Your task to perform on an android device: turn off wifi Image 0: 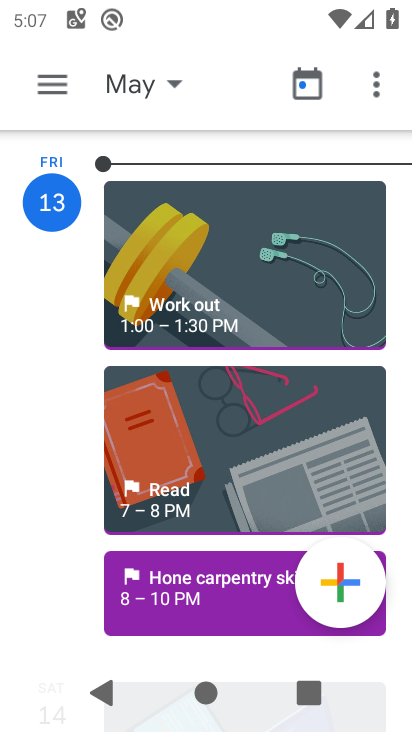
Step 0: press back button
Your task to perform on an android device: turn off wifi Image 1: 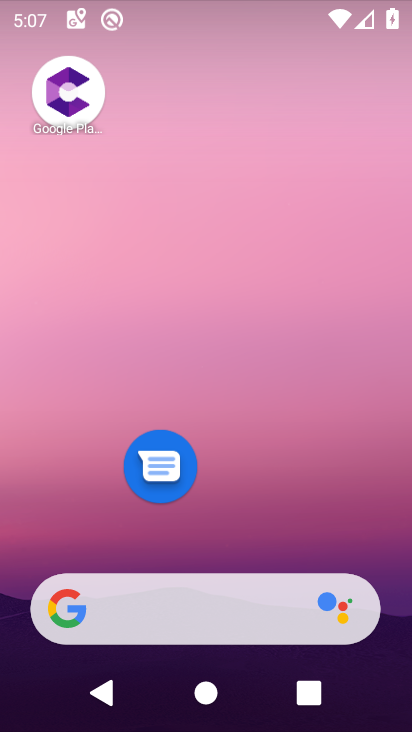
Step 1: drag from (274, 555) to (92, 69)
Your task to perform on an android device: turn off wifi Image 2: 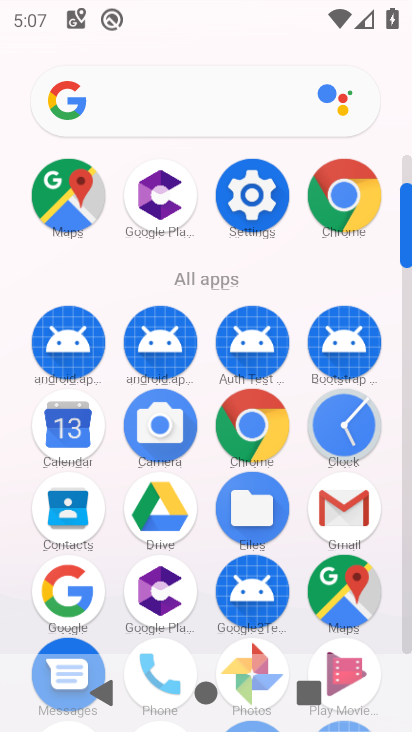
Step 2: click (335, 197)
Your task to perform on an android device: turn off wifi Image 3: 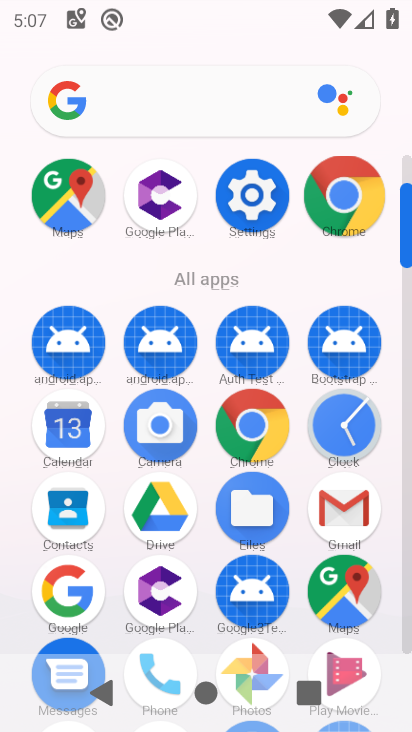
Step 3: click (335, 197)
Your task to perform on an android device: turn off wifi Image 4: 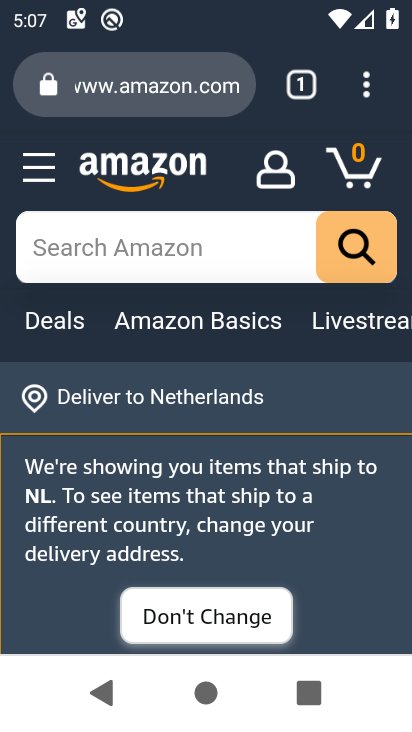
Step 4: drag from (363, 94) to (409, 86)
Your task to perform on an android device: turn off wifi Image 5: 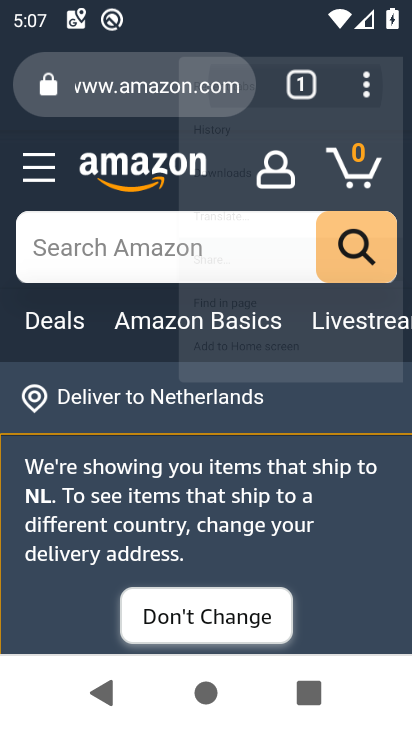
Step 5: click (234, 20)
Your task to perform on an android device: turn off wifi Image 6: 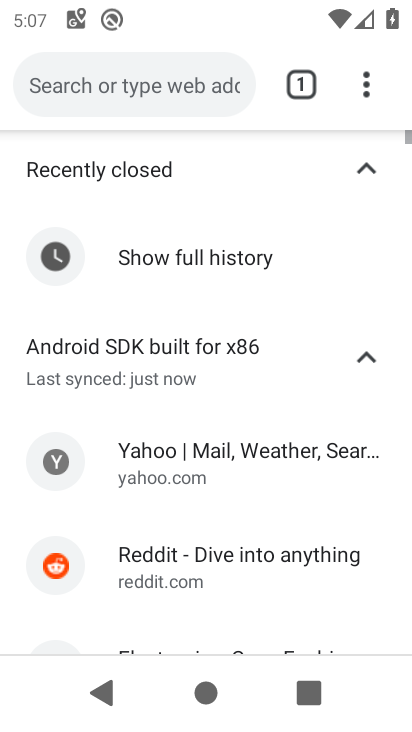
Step 6: click (254, 590)
Your task to perform on an android device: turn off wifi Image 7: 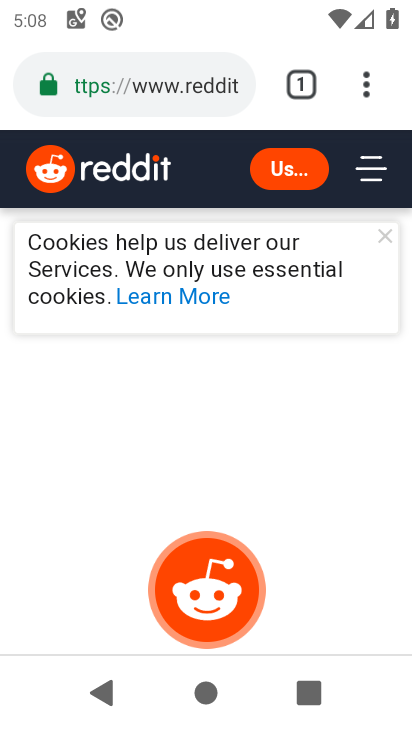
Step 7: press back button
Your task to perform on an android device: turn off wifi Image 8: 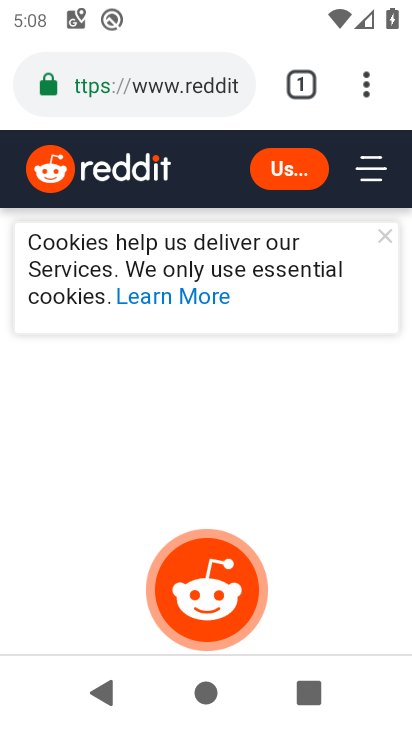
Step 8: press back button
Your task to perform on an android device: turn off wifi Image 9: 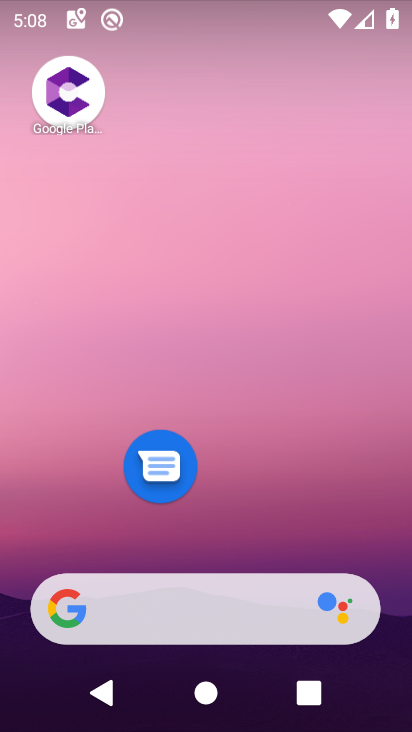
Step 9: drag from (333, 597) to (99, 74)
Your task to perform on an android device: turn off wifi Image 10: 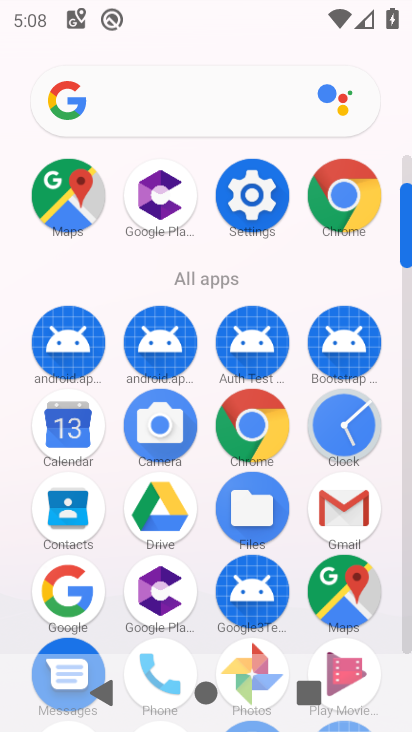
Step 10: click (249, 197)
Your task to perform on an android device: turn off wifi Image 11: 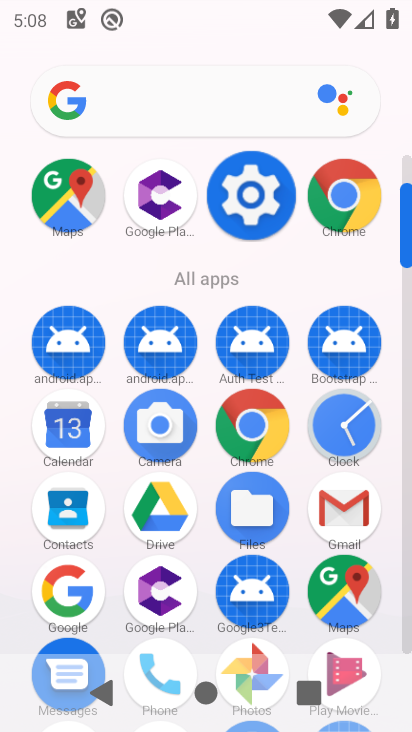
Step 11: click (249, 197)
Your task to perform on an android device: turn off wifi Image 12: 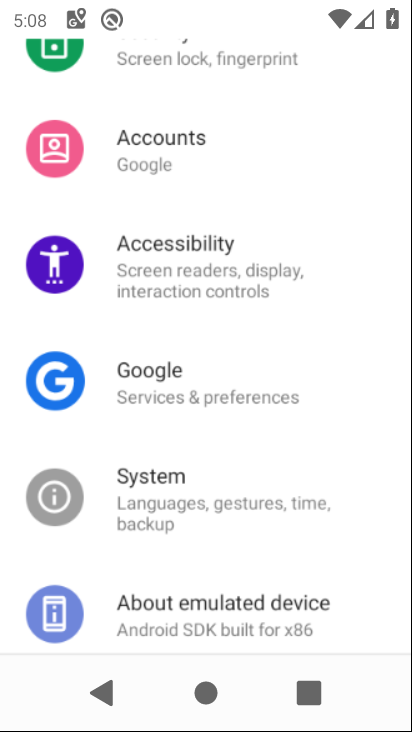
Step 12: click (250, 196)
Your task to perform on an android device: turn off wifi Image 13: 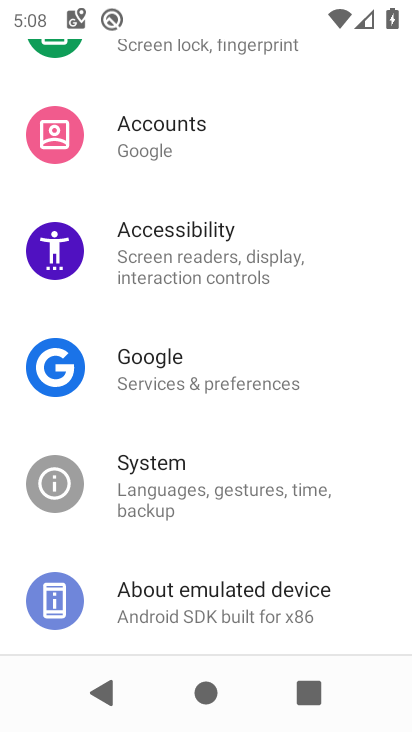
Step 13: click (253, 192)
Your task to perform on an android device: turn off wifi Image 14: 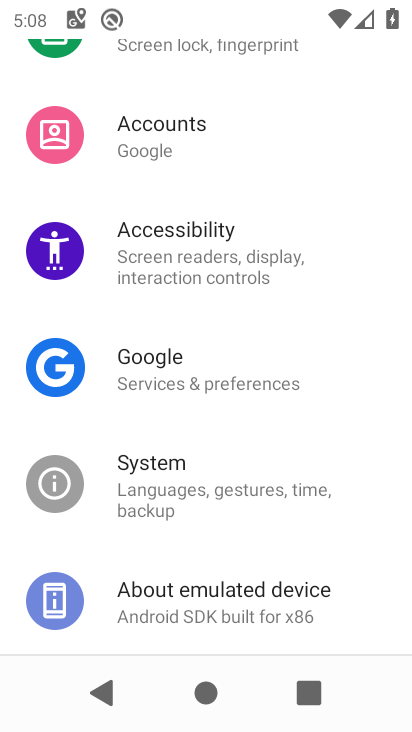
Step 14: click (255, 195)
Your task to perform on an android device: turn off wifi Image 15: 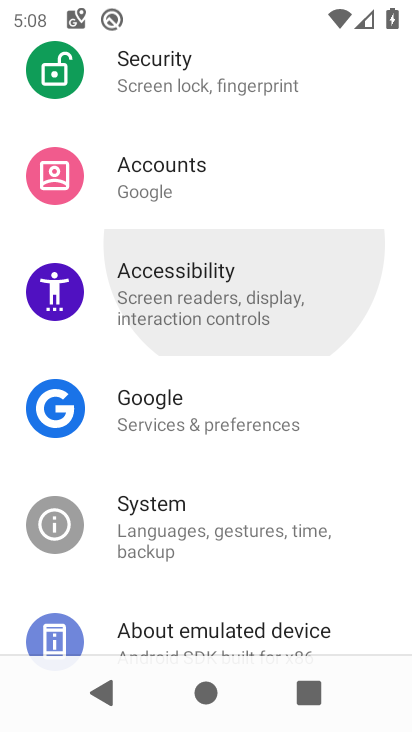
Step 15: click (249, 201)
Your task to perform on an android device: turn off wifi Image 16: 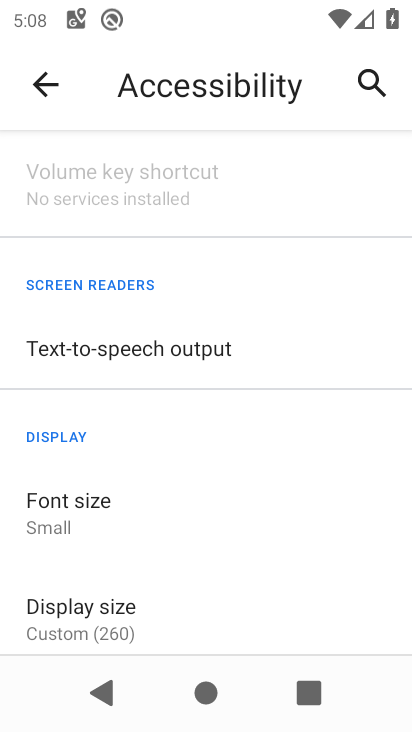
Step 16: click (41, 87)
Your task to perform on an android device: turn off wifi Image 17: 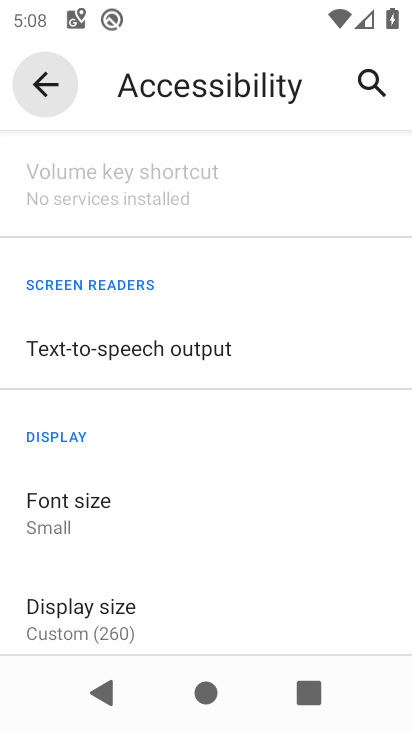
Step 17: click (46, 83)
Your task to perform on an android device: turn off wifi Image 18: 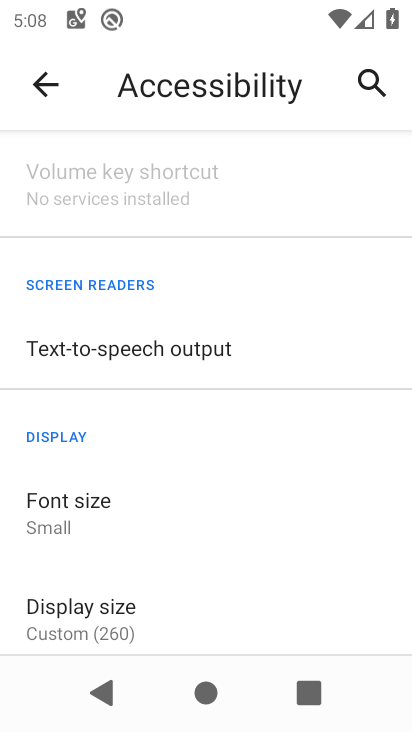
Step 18: click (45, 82)
Your task to perform on an android device: turn off wifi Image 19: 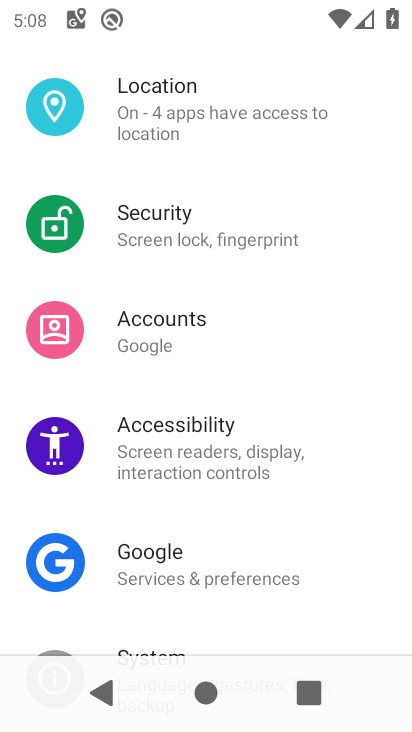
Step 19: drag from (259, 551) to (208, 483)
Your task to perform on an android device: turn off wifi Image 20: 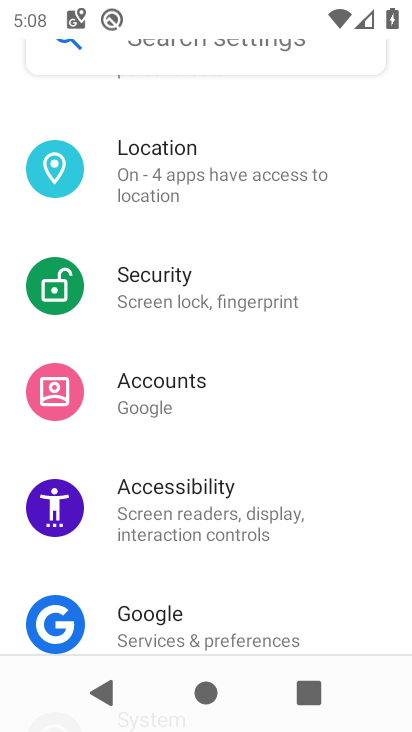
Step 20: drag from (162, 262) to (266, 637)
Your task to perform on an android device: turn off wifi Image 21: 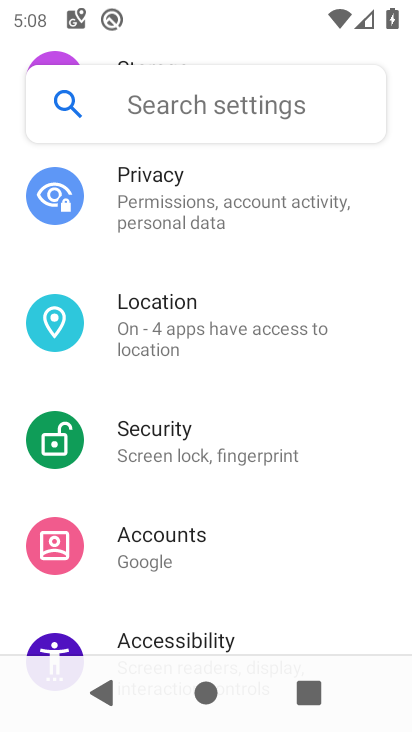
Step 21: drag from (203, 262) to (200, 606)
Your task to perform on an android device: turn off wifi Image 22: 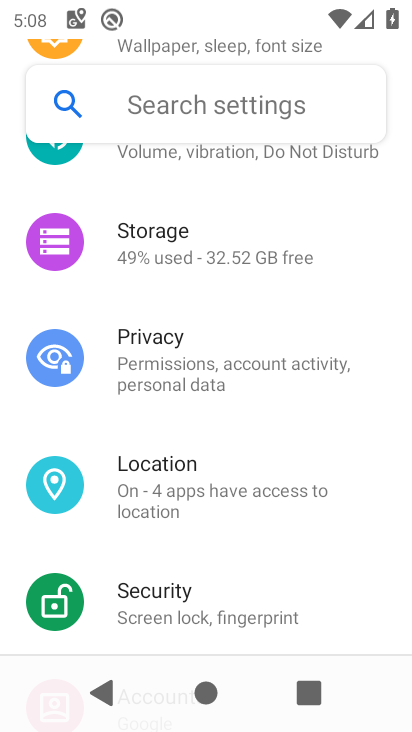
Step 22: click (221, 514)
Your task to perform on an android device: turn off wifi Image 23: 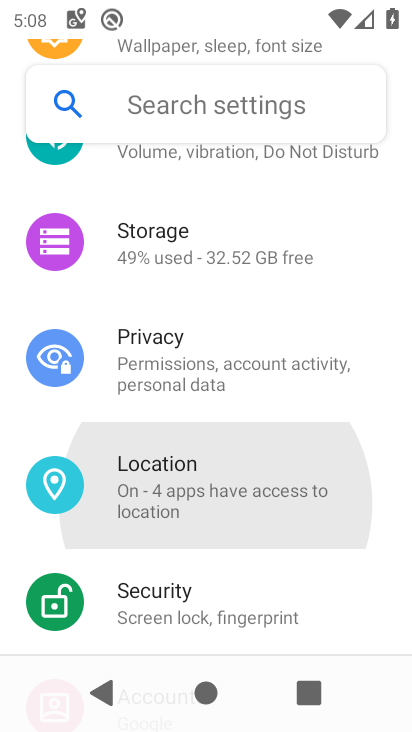
Step 23: drag from (148, 195) to (215, 650)
Your task to perform on an android device: turn off wifi Image 24: 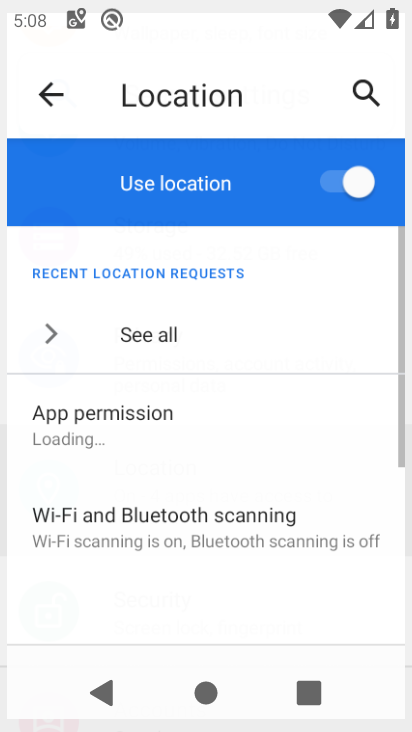
Step 24: drag from (137, 180) to (169, 489)
Your task to perform on an android device: turn off wifi Image 25: 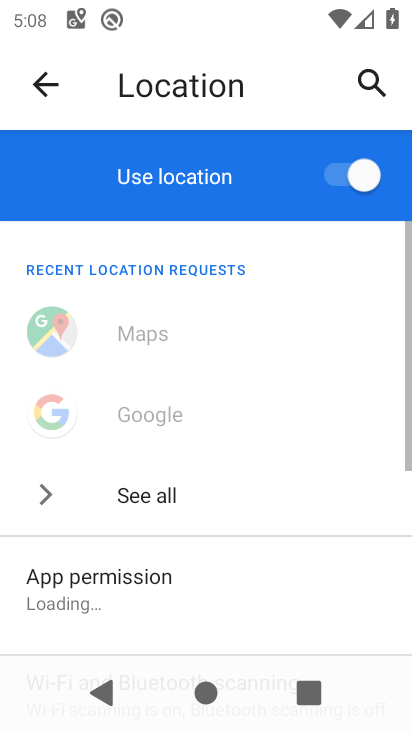
Step 25: drag from (206, 420) to (245, 652)
Your task to perform on an android device: turn off wifi Image 26: 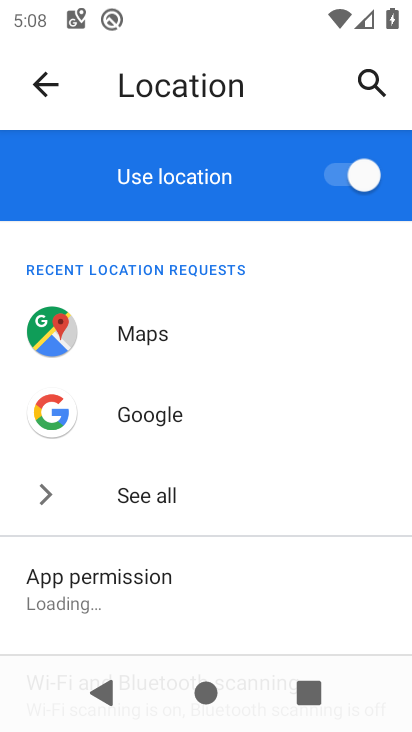
Step 26: click (48, 79)
Your task to perform on an android device: turn off wifi Image 27: 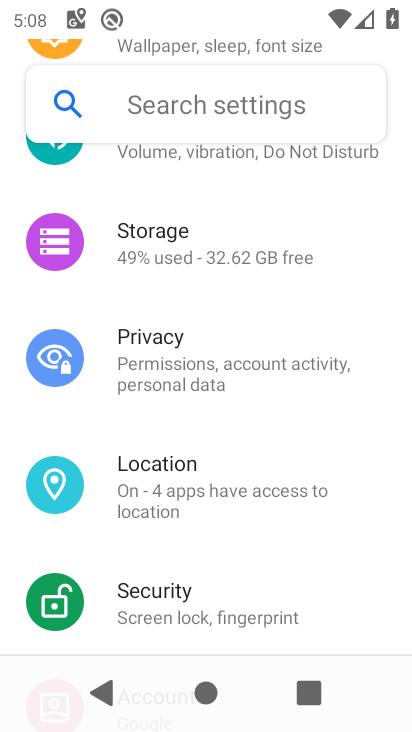
Step 27: drag from (148, 221) to (194, 539)
Your task to perform on an android device: turn off wifi Image 28: 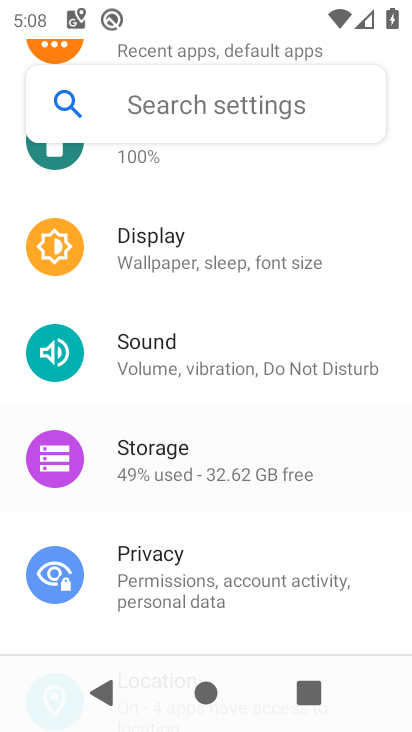
Step 28: drag from (168, 323) to (200, 551)
Your task to perform on an android device: turn off wifi Image 29: 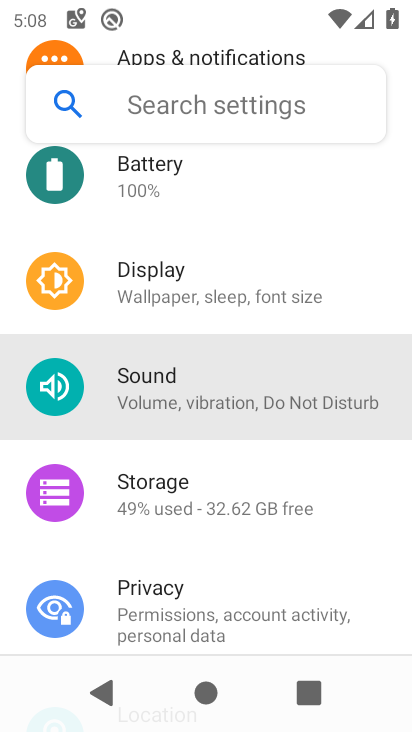
Step 29: drag from (159, 322) to (187, 600)
Your task to perform on an android device: turn off wifi Image 30: 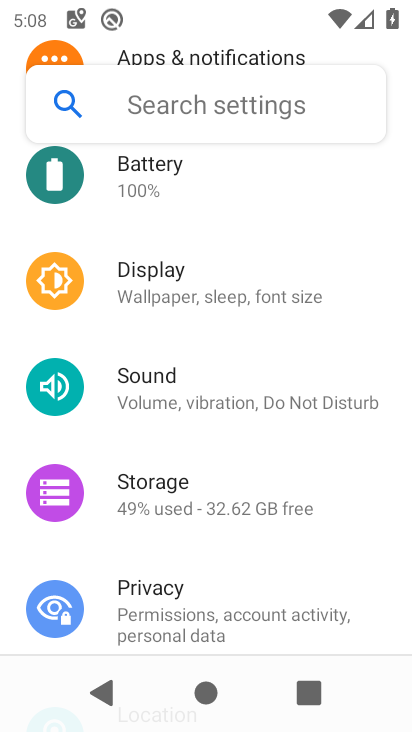
Step 30: drag from (124, 296) to (127, 630)
Your task to perform on an android device: turn off wifi Image 31: 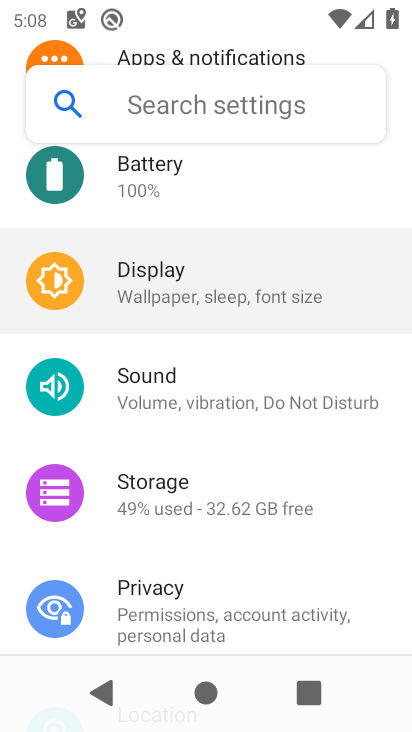
Step 31: drag from (154, 353) to (271, 579)
Your task to perform on an android device: turn off wifi Image 32: 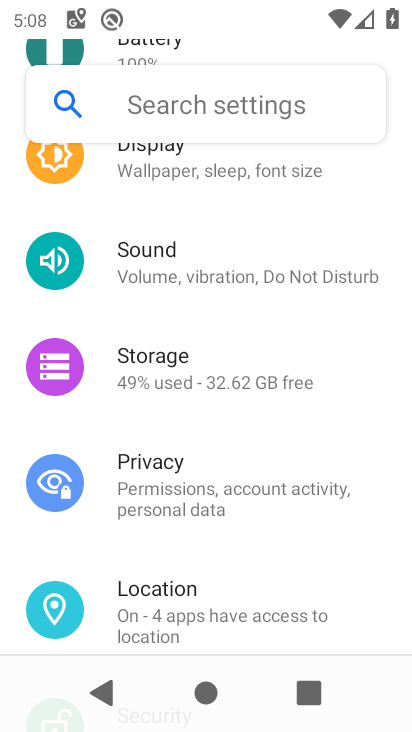
Step 32: drag from (185, 317) to (232, 683)
Your task to perform on an android device: turn off wifi Image 33: 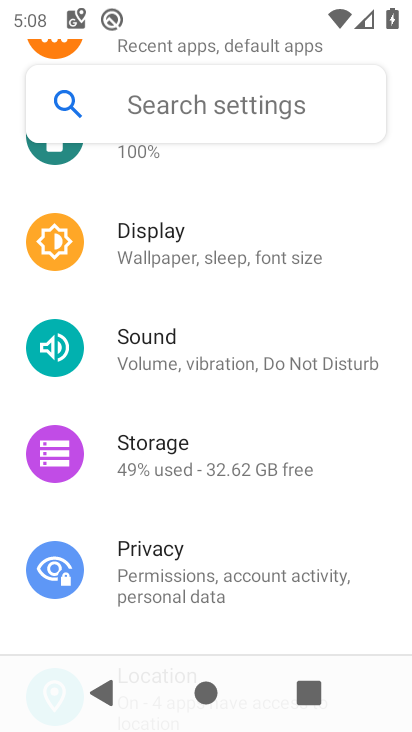
Step 33: drag from (185, 236) to (228, 540)
Your task to perform on an android device: turn off wifi Image 34: 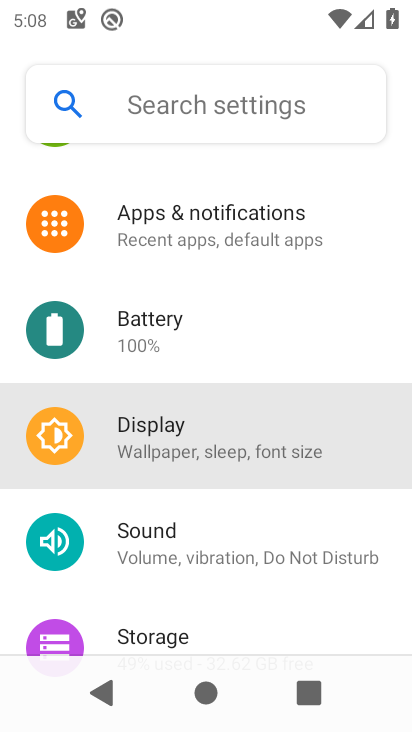
Step 34: drag from (206, 426) to (233, 562)
Your task to perform on an android device: turn off wifi Image 35: 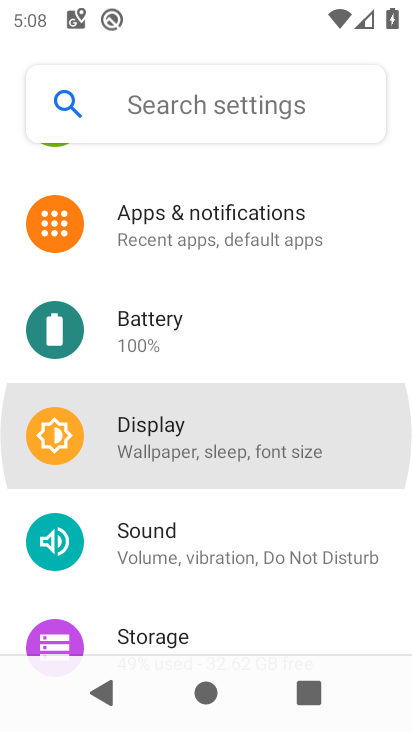
Step 35: drag from (232, 409) to (219, 510)
Your task to perform on an android device: turn off wifi Image 36: 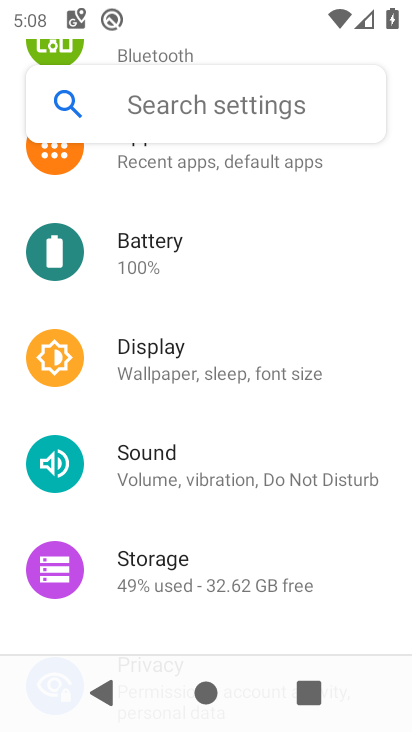
Step 36: drag from (186, 215) to (166, 515)
Your task to perform on an android device: turn off wifi Image 37: 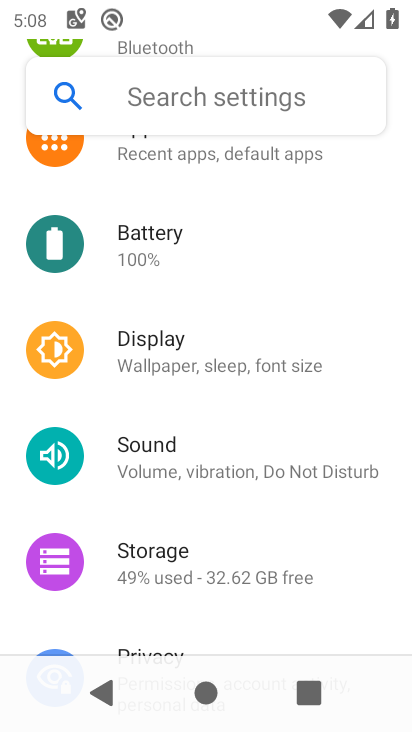
Step 37: drag from (156, 242) to (167, 533)
Your task to perform on an android device: turn off wifi Image 38: 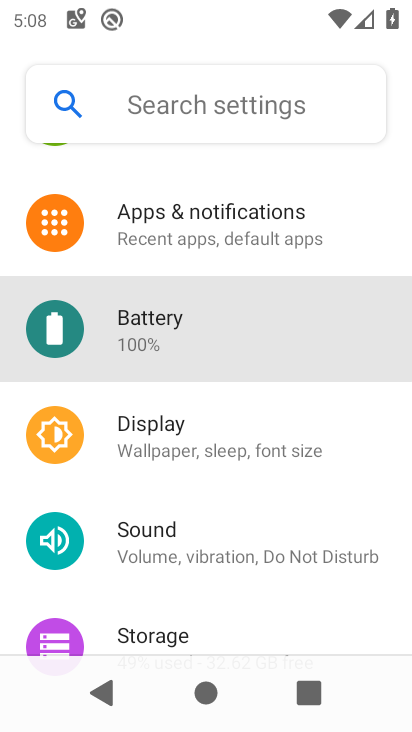
Step 38: drag from (176, 217) to (191, 596)
Your task to perform on an android device: turn off wifi Image 39: 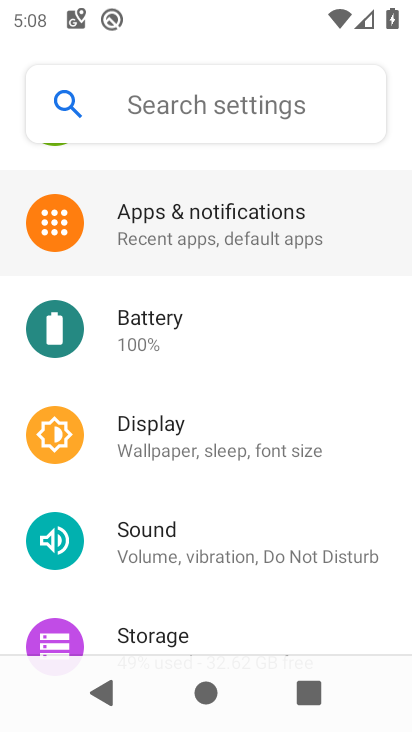
Step 39: click (218, 456)
Your task to perform on an android device: turn off wifi Image 40: 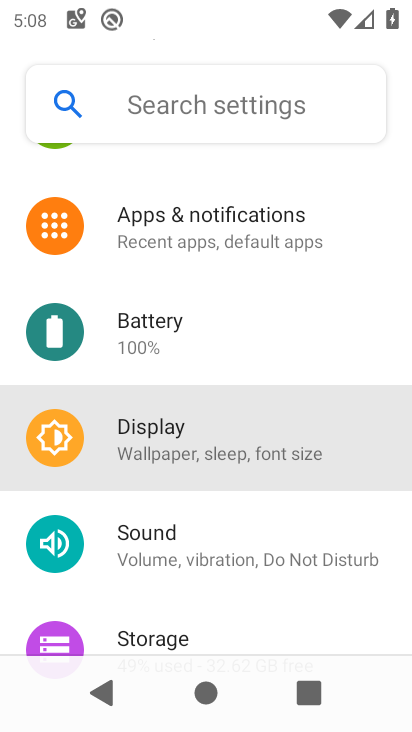
Step 40: click (188, 251)
Your task to perform on an android device: turn off wifi Image 41: 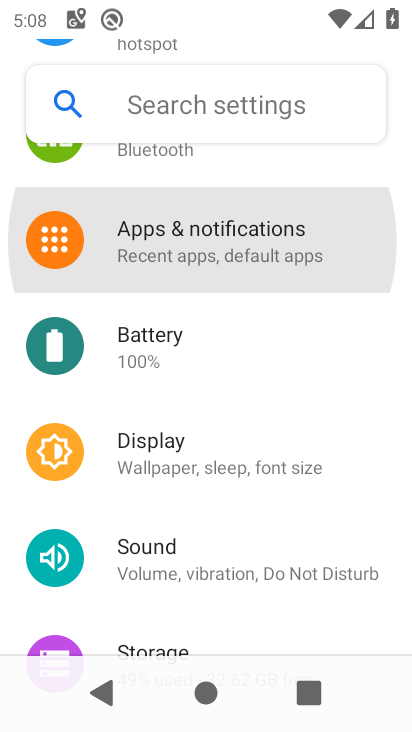
Step 41: click (210, 481)
Your task to perform on an android device: turn off wifi Image 42: 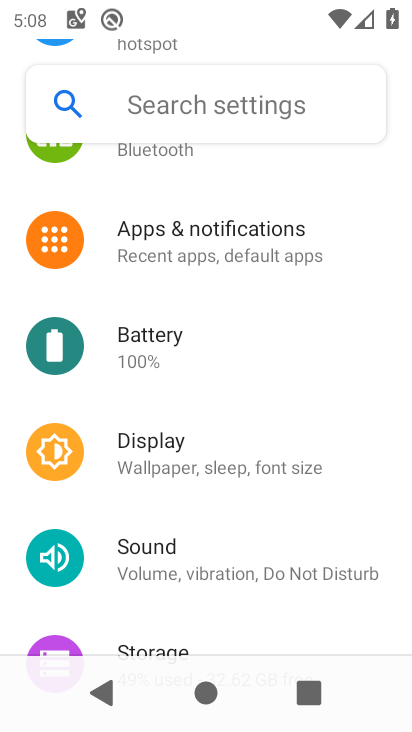
Step 42: drag from (201, 312) to (189, 485)
Your task to perform on an android device: turn off wifi Image 43: 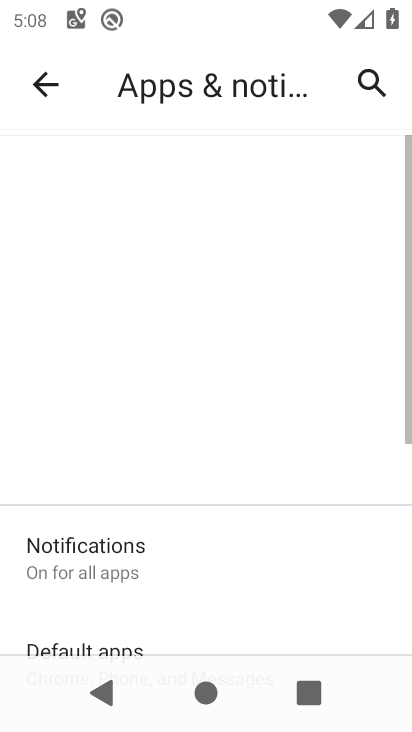
Step 43: drag from (164, 255) to (188, 434)
Your task to perform on an android device: turn off wifi Image 44: 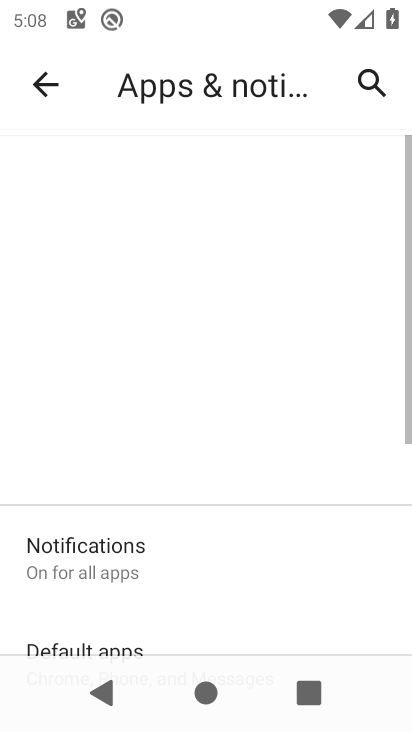
Step 44: drag from (157, 251) to (201, 611)
Your task to perform on an android device: turn off wifi Image 45: 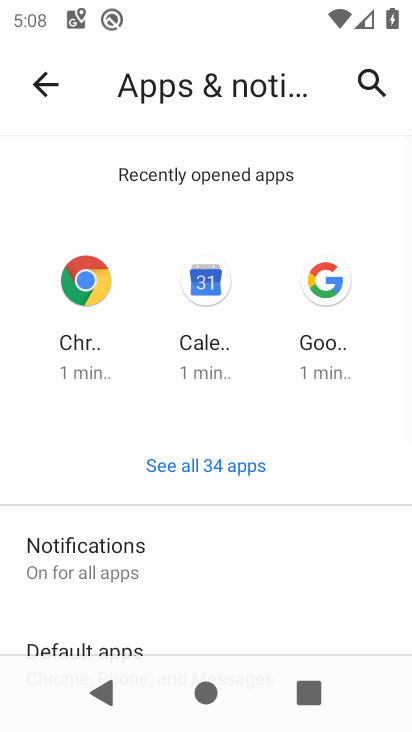
Step 45: click (43, 83)
Your task to perform on an android device: turn off wifi Image 46: 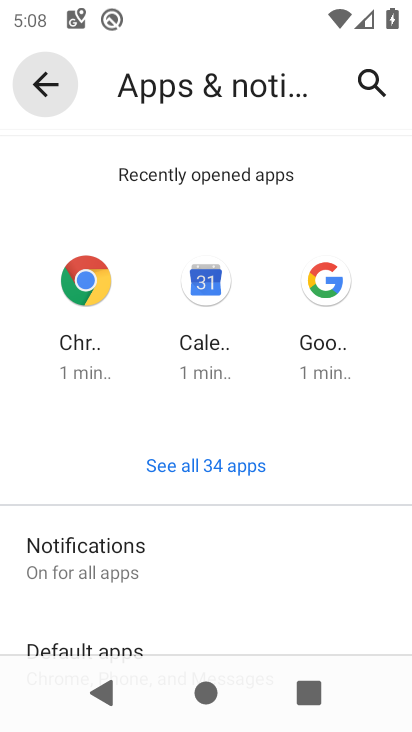
Step 46: click (42, 84)
Your task to perform on an android device: turn off wifi Image 47: 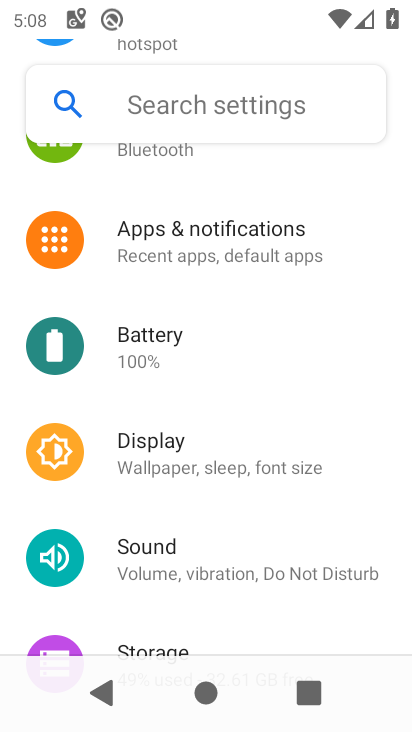
Step 47: click (213, 426)
Your task to perform on an android device: turn off wifi Image 48: 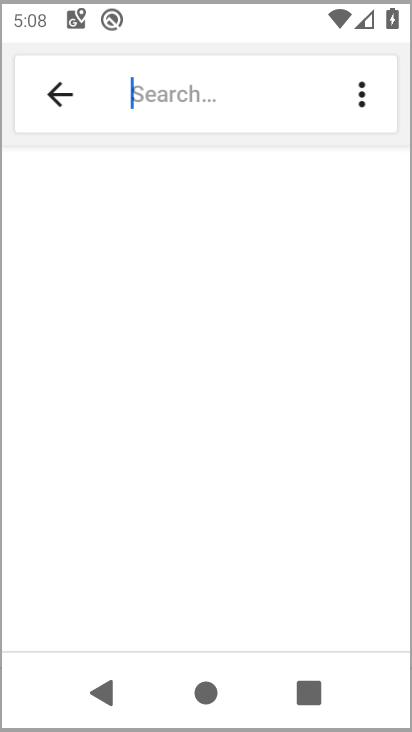
Step 48: click (261, 464)
Your task to perform on an android device: turn off wifi Image 49: 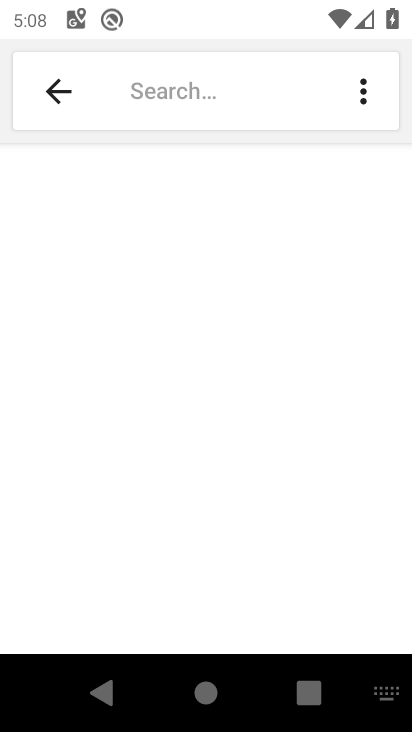
Step 49: drag from (178, 267) to (221, 516)
Your task to perform on an android device: turn off wifi Image 50: 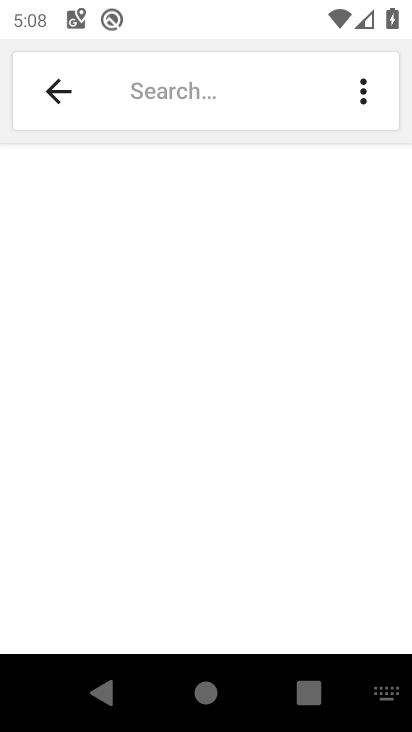
Step 50: click (47, 76)
Your task to perform on an android device: turn off wifi Image 51: 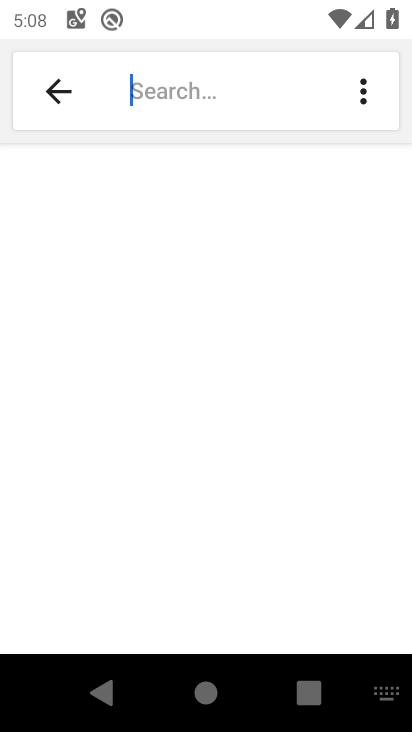
Step 51: click (53, 85)
Your task to perform on an android device: turn off wifi Image 52: 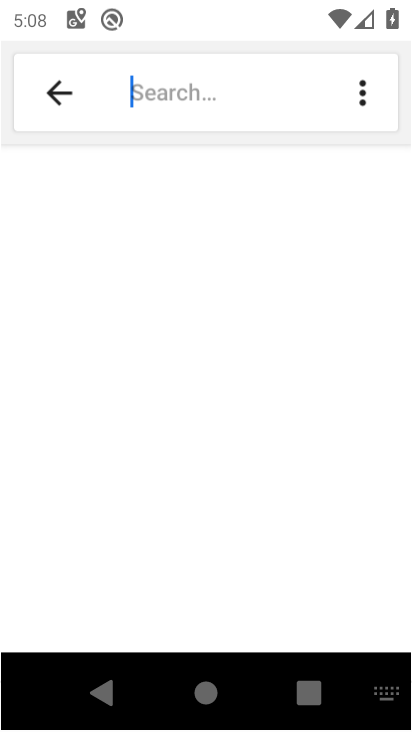
Step 52: click (56, 87)
Your task to perform on an android device: turn off wifi Image 53: 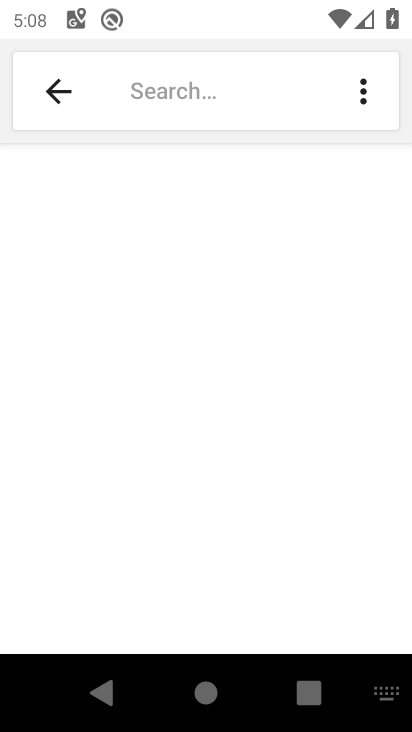
Step 53: drag from (196, 199) to (201, 379)
Your task to perform on an android device: turn off wifi Image 54: 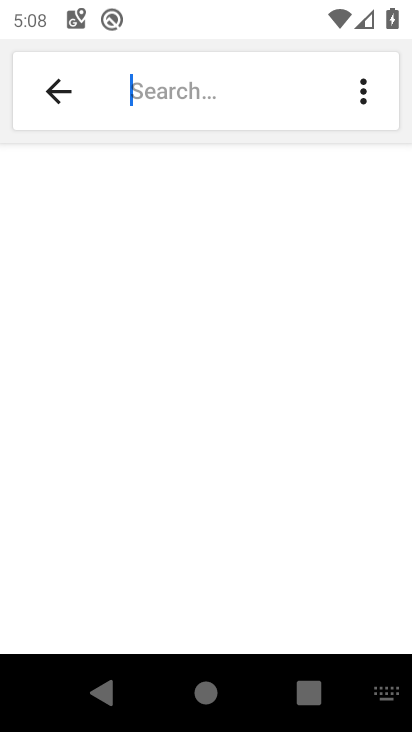
Step 54: click (196, 354)
Your task to perform on an android device: turn off wifi Image 55: 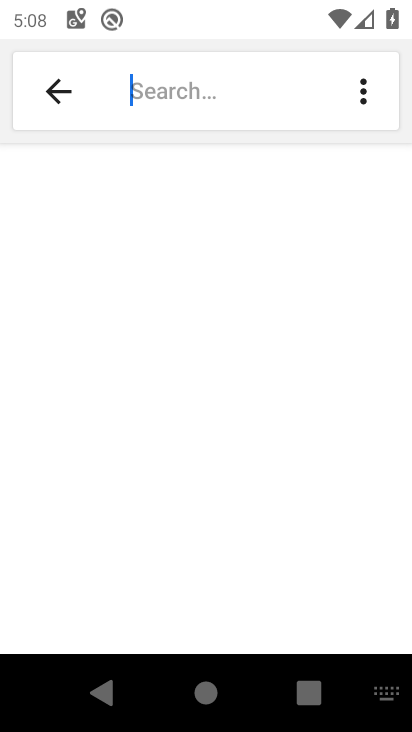
Step 55: click (54, 86)
Your task to perform on an android device: turn off wifi Image 56: 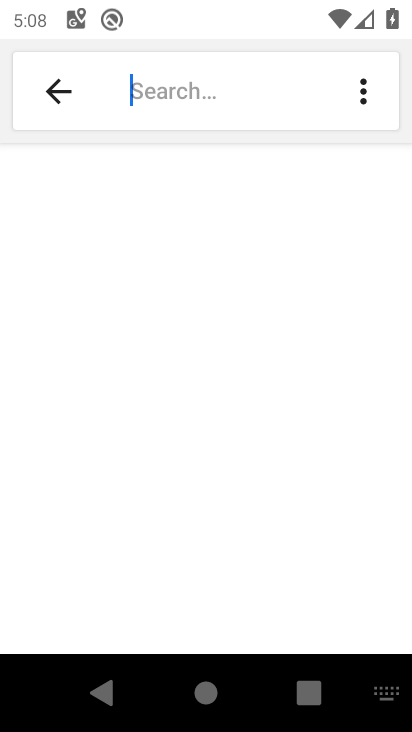
Step 56: click (53, 86)
Your task to perform on an android device: turn off wifi Image 57: 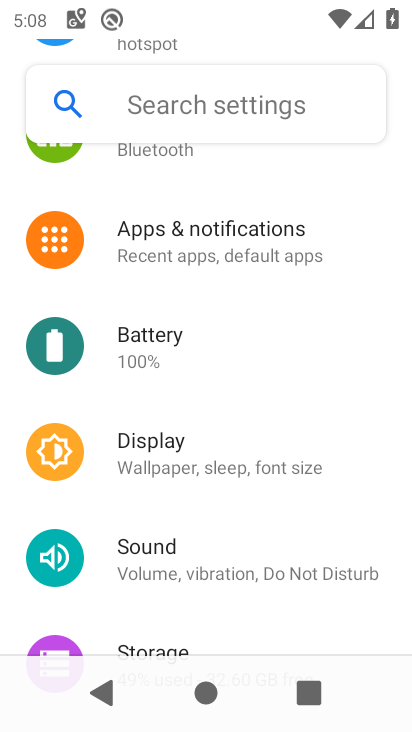
Step 57: drag from (156, 301) to (194, 424)
Your task to perform on an android device: turn off wifi Image 58: 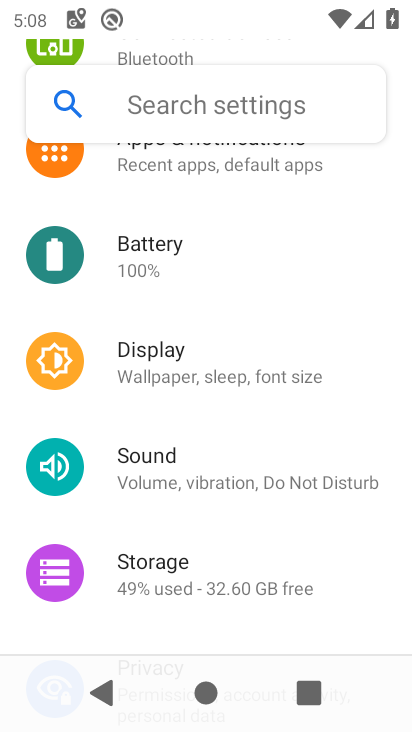
Step 58: drag from (189, 260) to (206, 412)
Your task to perform on an android device: turn off wifi Image 59: 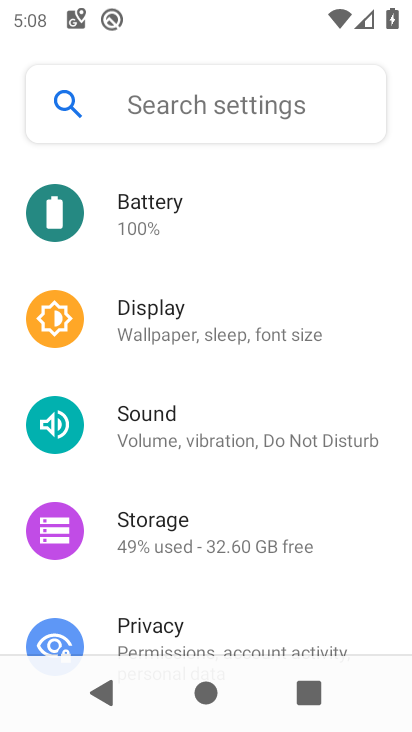
Step 59: drag from (199, 279) to (192, 398)
Your task to perform on an android device: turn off wifi Image 60: 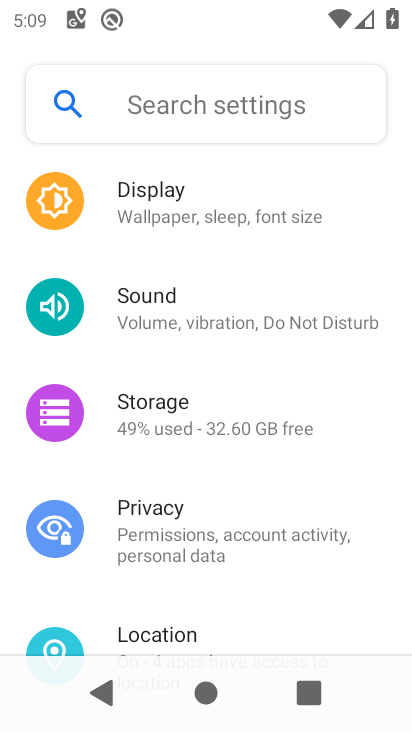
Step 60: drag from (224, 471) to (217, 397)
Your task to perform on an android device: turn off wifi Image 61: 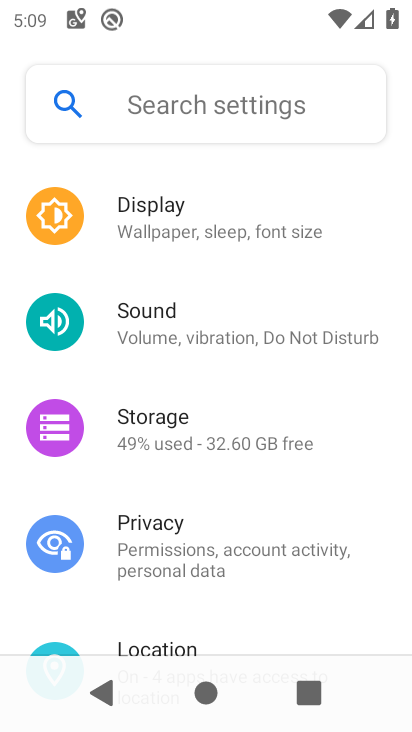
Step 61: drag from (222, 413) to (142, 315)
Your task to perform on an android device: turn off wifi Image 62: 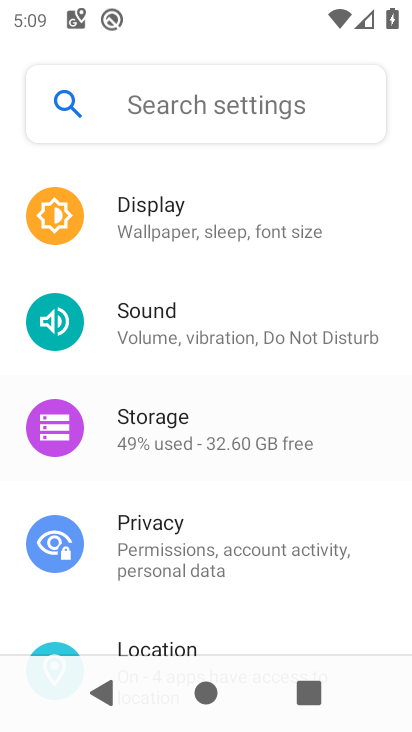
Step 62: drag from (206, 431) to (220, 353)
Your task to perform on an android device: turn off wifi Image 63: 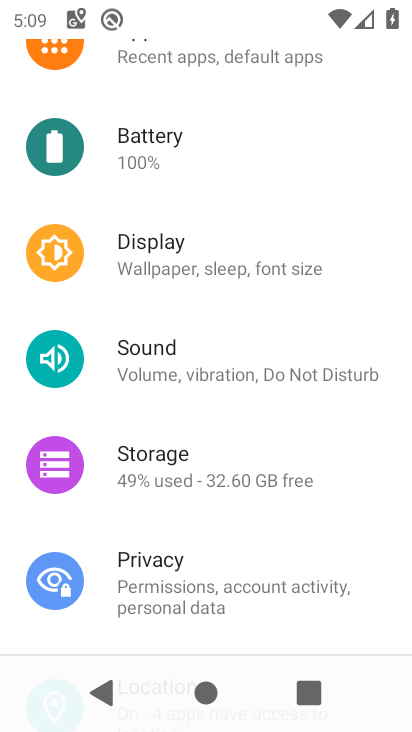
Step 63: drag from (180, 268) to (174, 377)
Your task to perform on an android device: turn off wifi Image 64: 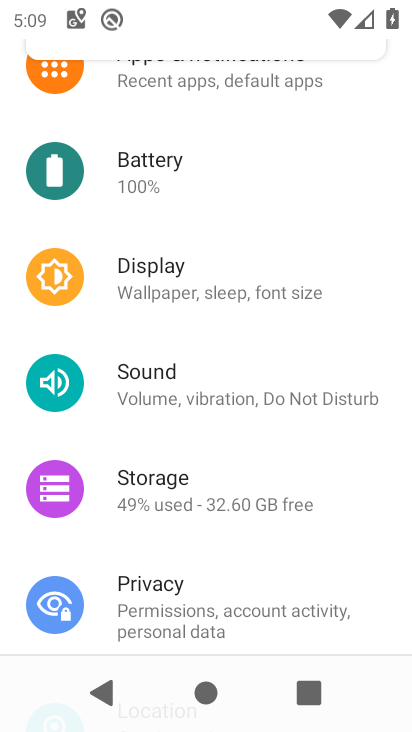
Step 64: drag from (179, 350) to (218, 491)
Your task to perform on an android device: turn off wifi Image 65: 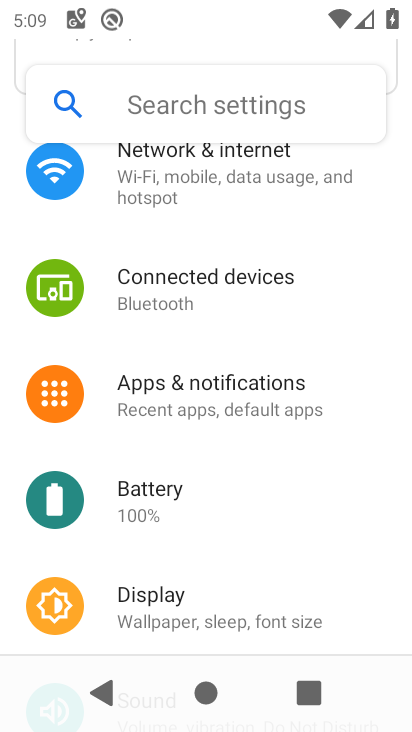
Step 65: drag from (244, 280) to (270, 484)
Your task to perform on an android device: turn off wifi Image 66: 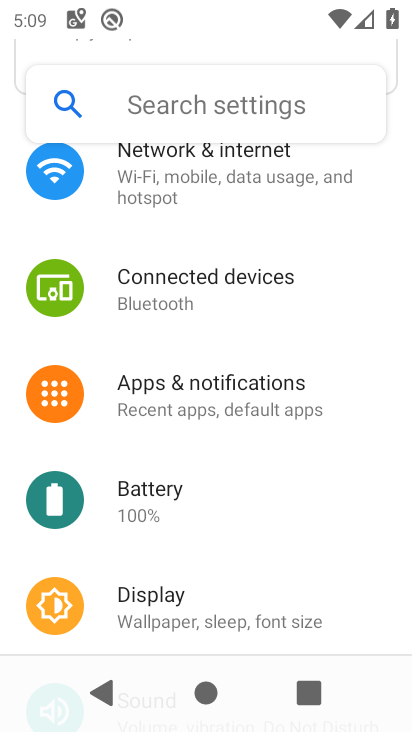
Step 66: click (204, 166)
Your task to perform on an android device: turn off wifi Image 67: 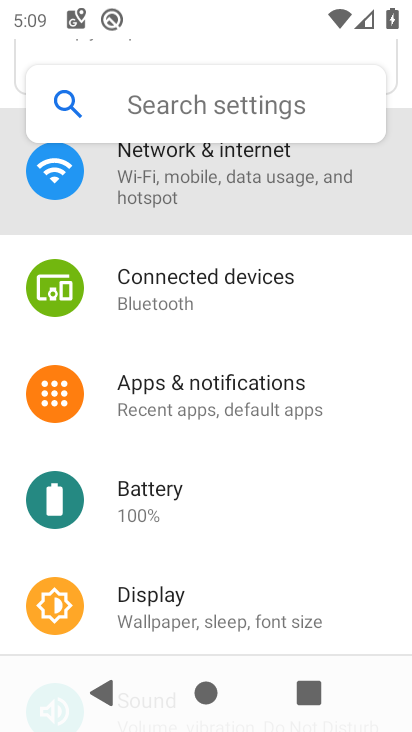
Step 67: click (208, 172)
Your task to perform on an android device: turn off wifi Image 68: 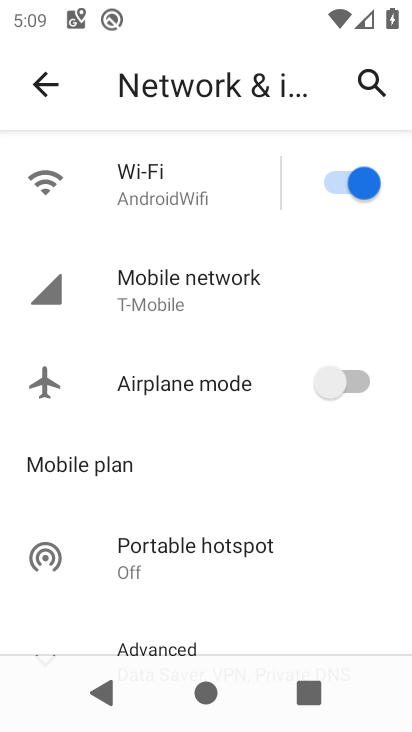
Step 68: click (360, 182)
Your task to perform on an android device: turn off wifi Image 69: 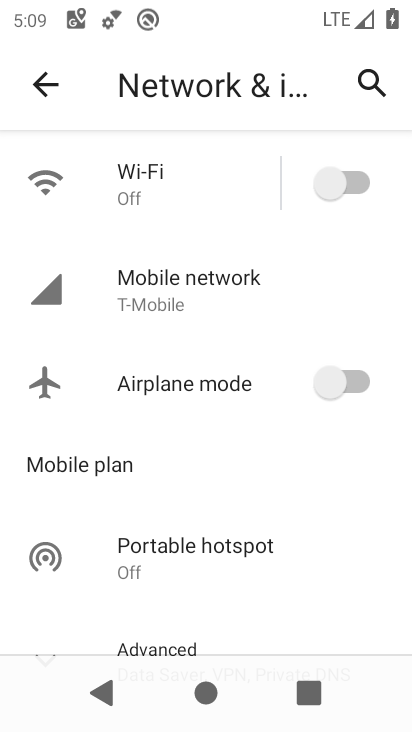
Step 69: task complete